Your task to perform on an android device: Open Wikipedia Image 0: 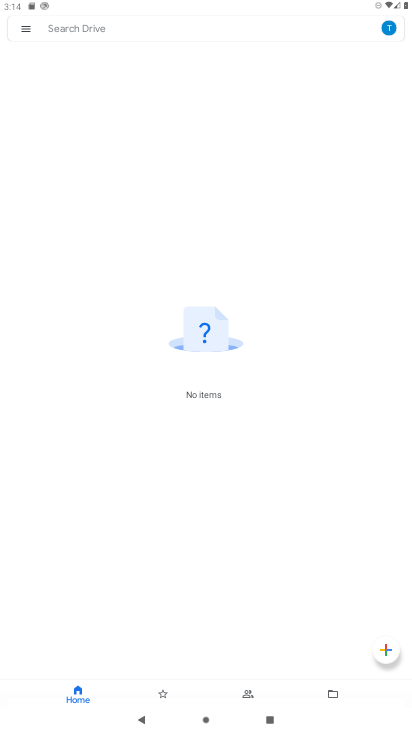
Step 0: press home button
Your task to perform on an android device: Open Wikipedia Image 1: 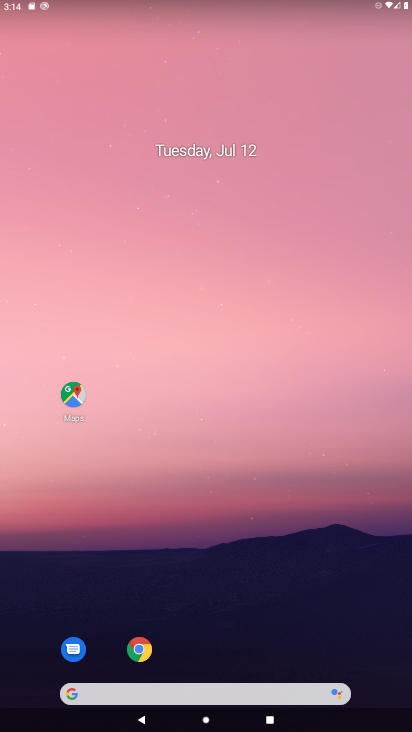
Step 1: drag from (242, 628) to (146, 165)
Your task to perform on an android device: Open Wikipedia Image 2: 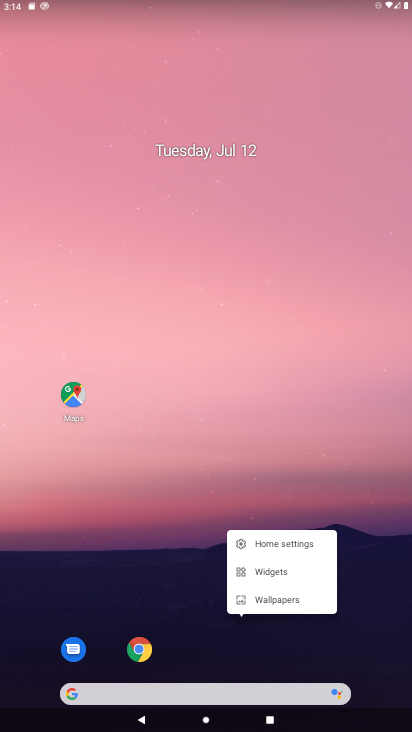
Step 2: click (203, 442)
Your task to perform on an android device: Open Wikipedia Image 3: 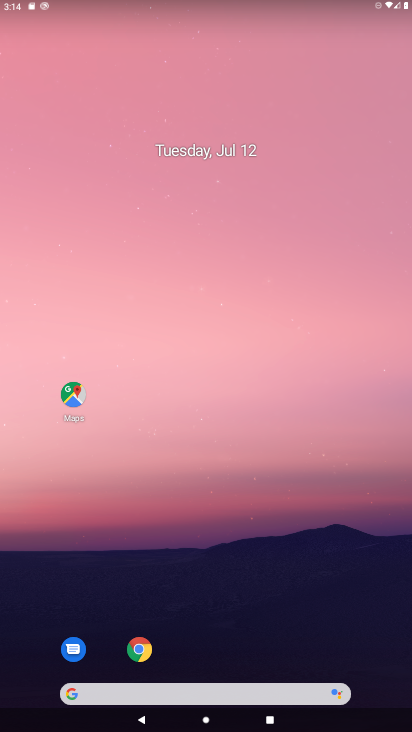
Step 3: drag from (241, 649) to (240, 2)
Your task to perform on an android device: Open Wikipedia Image 4: 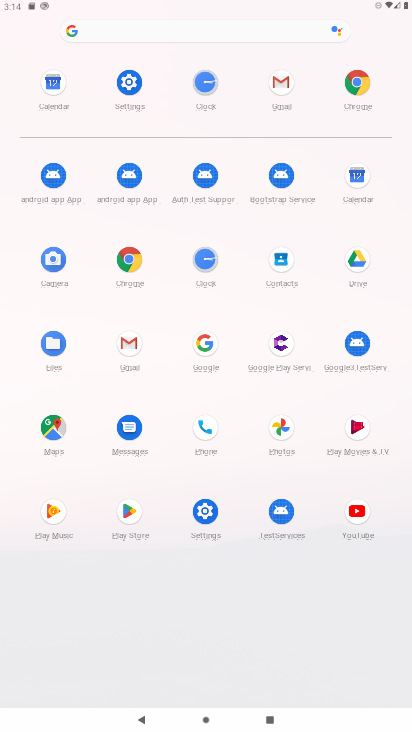
Step 4: click (187, 29)
Your task to perform on an android device: Open Wikipedia Image 5: 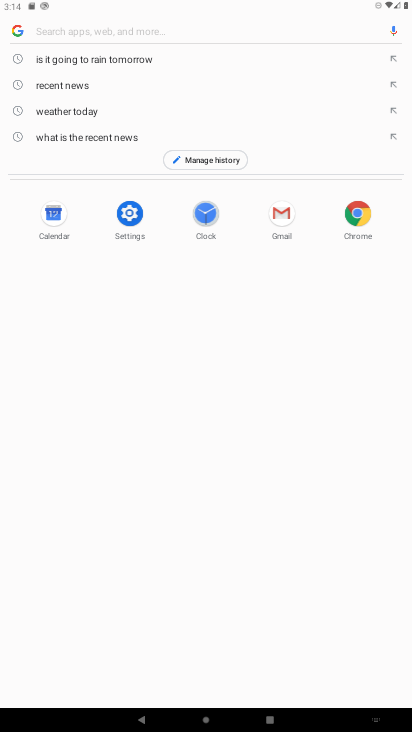
Step 5: type "wikipedia"
Your task to perform on an android device: Open Wikipedia Image 6: 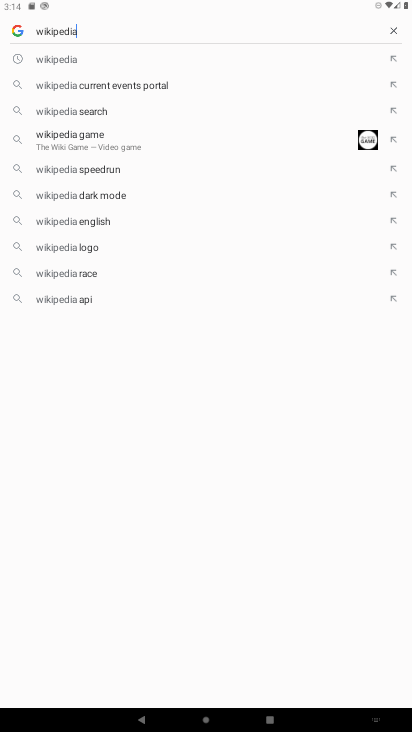
Step 6: click (124, 58)
Your task to perform on an android device: Open Wikipedia Image 7: 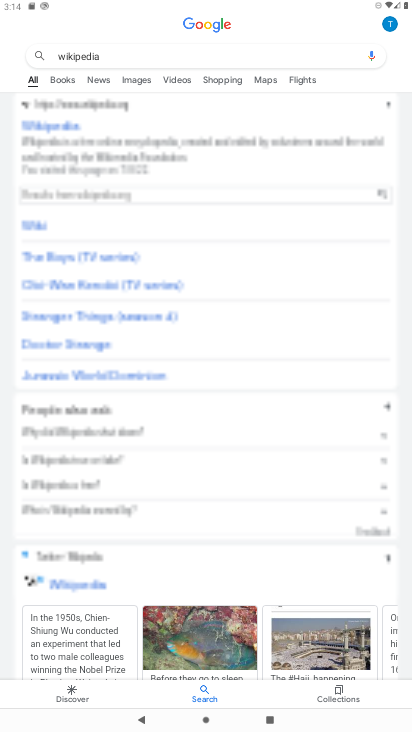
Step 7: click (34, 138)
Your task to perform on an android device: Open Wikipedia Image 8: 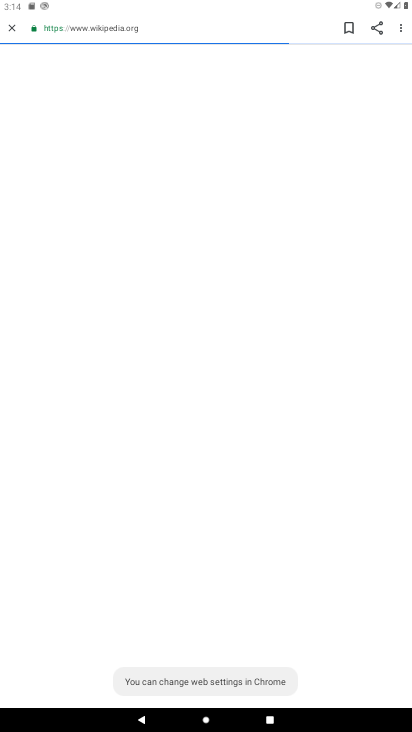
Step 8: task complete